Your task to perform on an android device: turn on location history Image 0: 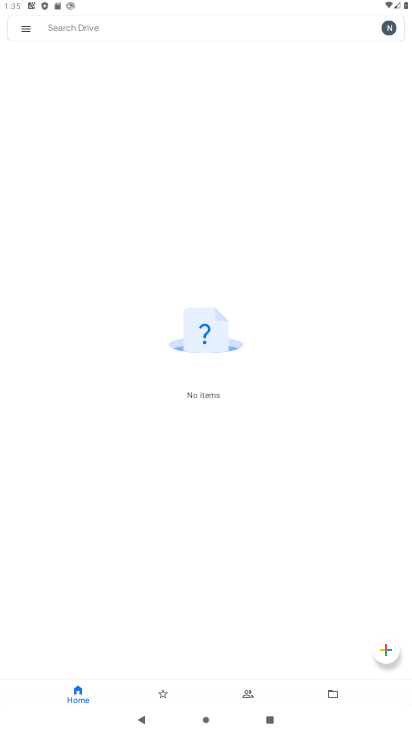
Step 0: press home button
Your task to perform on an android device: turn on location history Image 1: 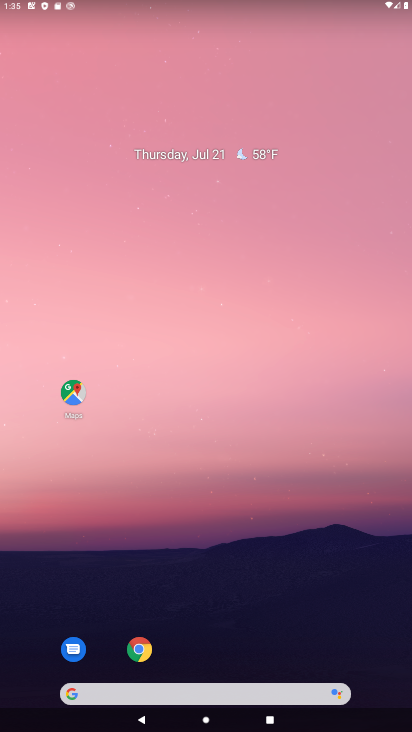
Step 1: drag from (252, 664) to (252, 213)
Your task to perform on an android device: turn on location history Image 2: 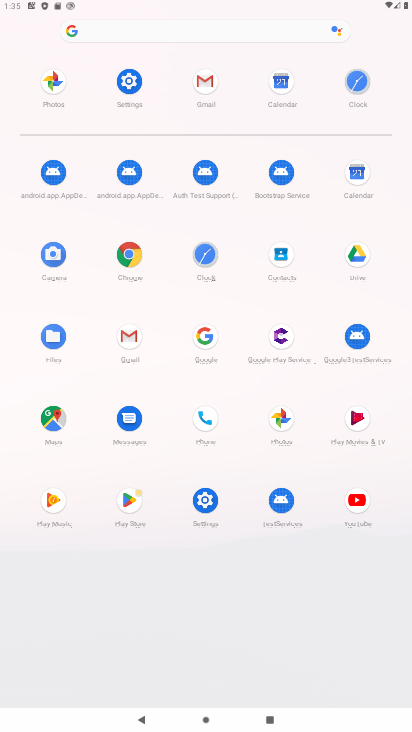
Step 2: click (133, 101)
Your task to perform on an android device: turn on location history Image 3: 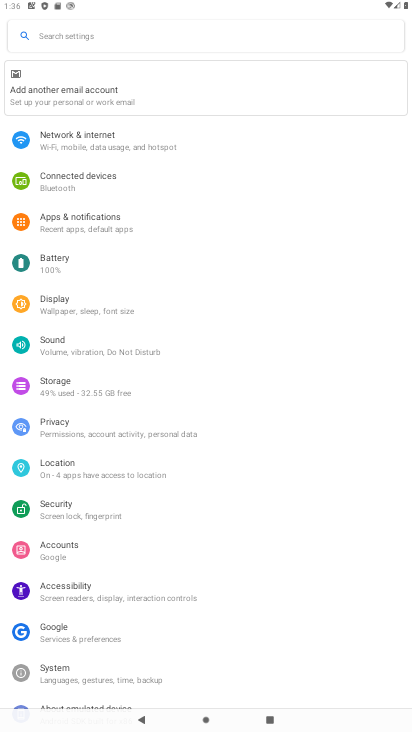
Step 3: click (126, 461)
Your task to perform on an android device: turn on location history Image 4: 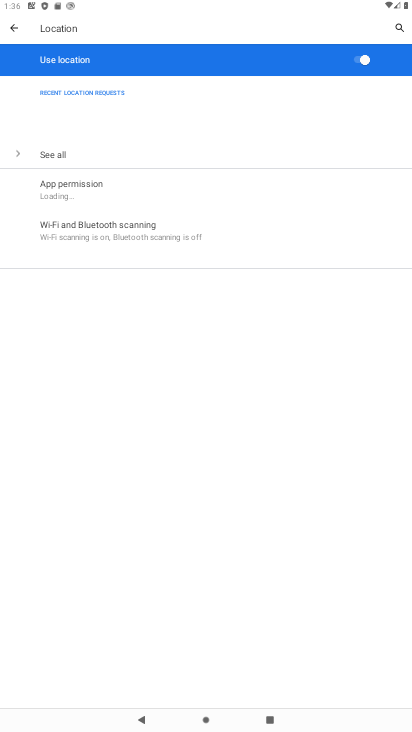
Step 4: task complete